Your task to perform on an android device: empty trash in the gmail app Image 0: 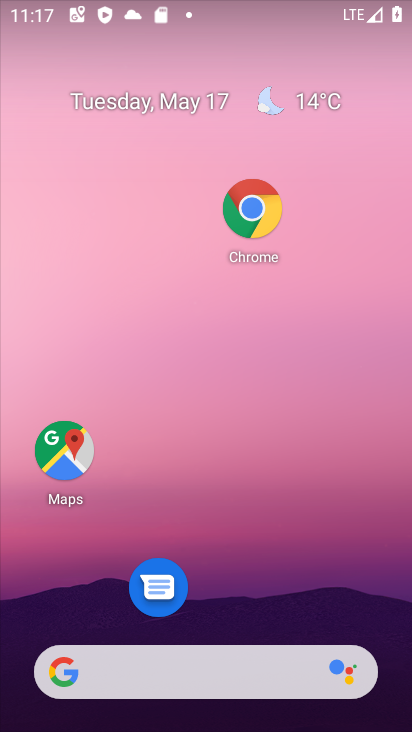
Step 0: drag from (287, 178) to (281, 104)
Your task to perform on an android device: empty trash in the gmail app Image 1: 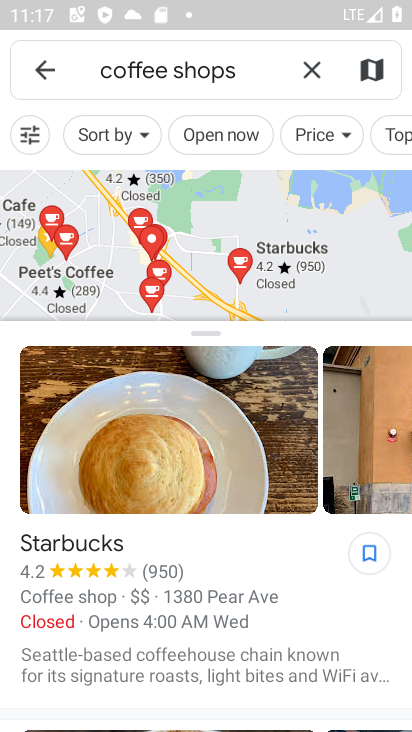
Step 1: press home button
Your task to perform on an android device: empty trash in the gmail app Image 2: 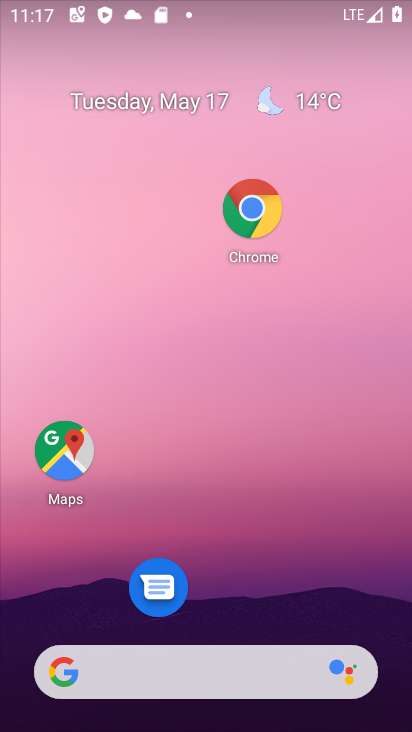
Step 2: drag from (281, 578) to (267, 76)
Your task to perform on an android device: empty trash in the gmail app Image 3: 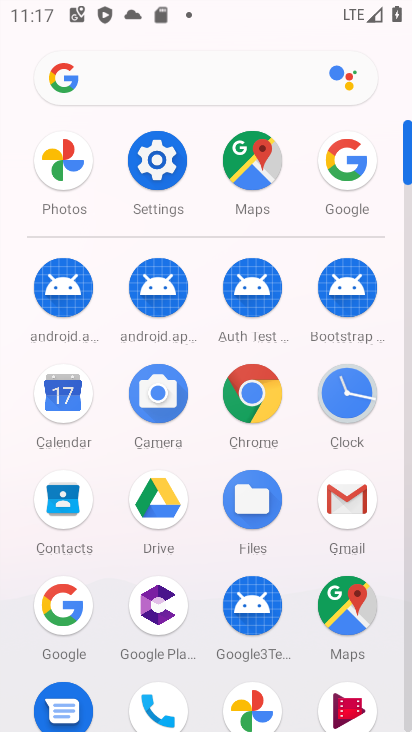
Step 3: click (341, 493)
Your task to perform on an android device: empty trash in the gmail app Image 4: 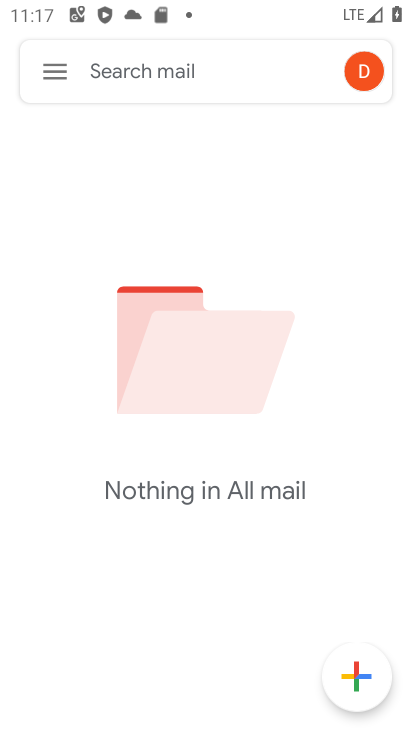
Step 4: click (43, 67)
Your task to perform on an android device: empty trash in the gmail app Image 5: 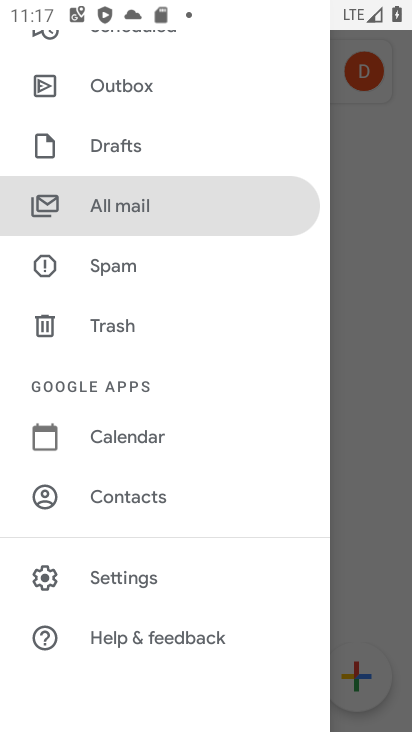
Step 5: click (142, 326)
Your task to perform on an android device: empty trash in the gmail app Image 6: 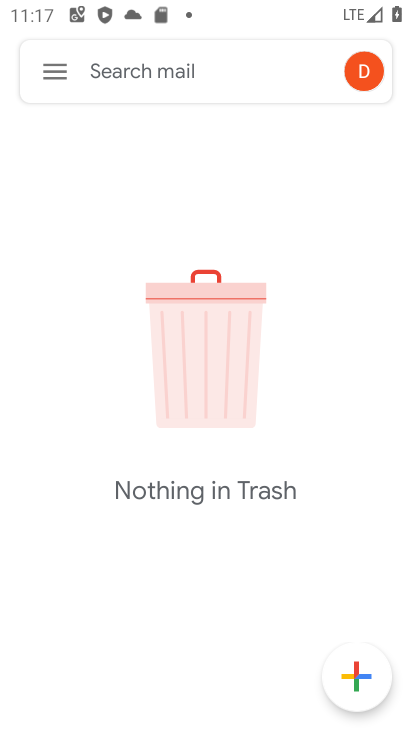
Step 6: task complete